Your task to perform on an android device: turn off improve location accuracy Image 0: 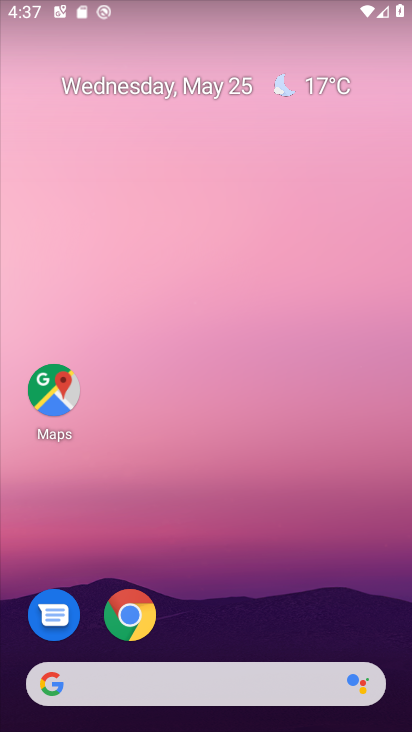
Step 0: drag from (271, 353) to (204, 27)
Your task to perform on an android device: turn off improve location accuracy Image 1: 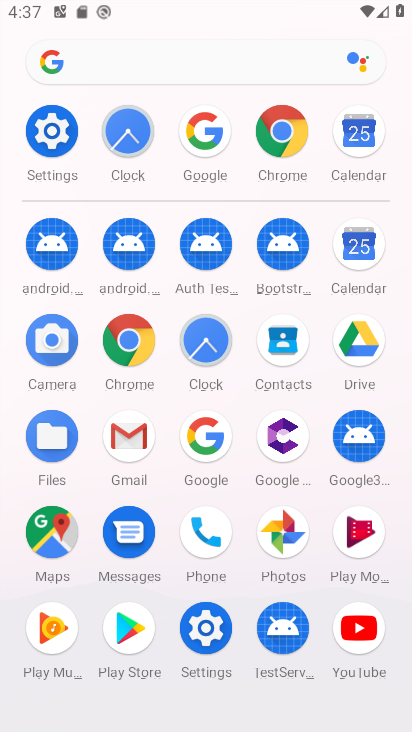
Step 1: click (54, 132)
Your task to perform on an android device: turn off improve location accuracy Image 2: 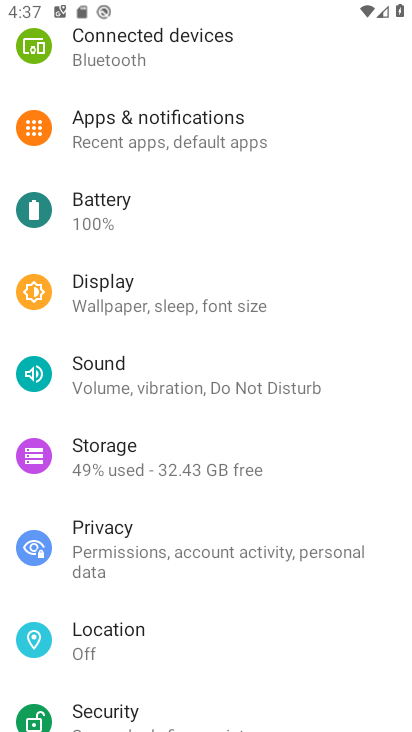
Step 2: click (201, 633)
Your task to perform on an android device: turn off improve location accuracy Image 3: 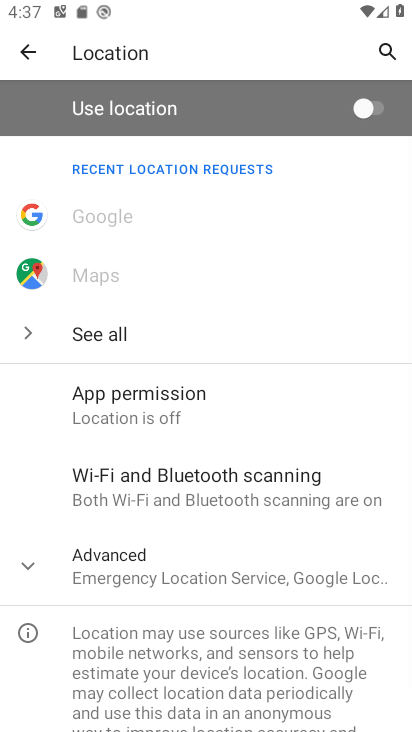
Step 3: click (218, 556)
Your task to perform on an android device: turn off improve location accuracy Image 4: 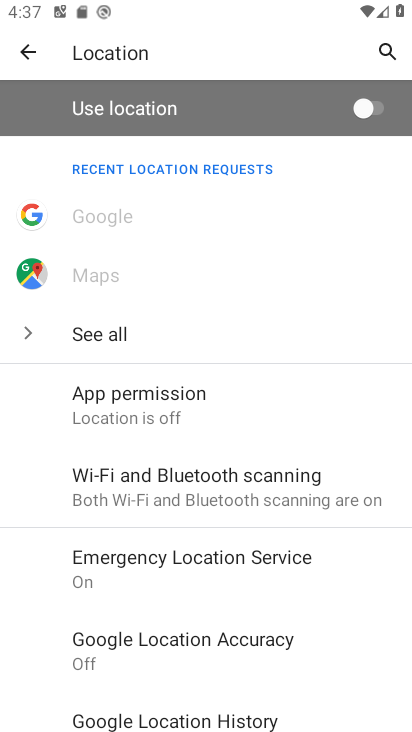
Step 4: click (267, 640)
Your task to perform on an android device: turn off improve location accuracy Image 5: 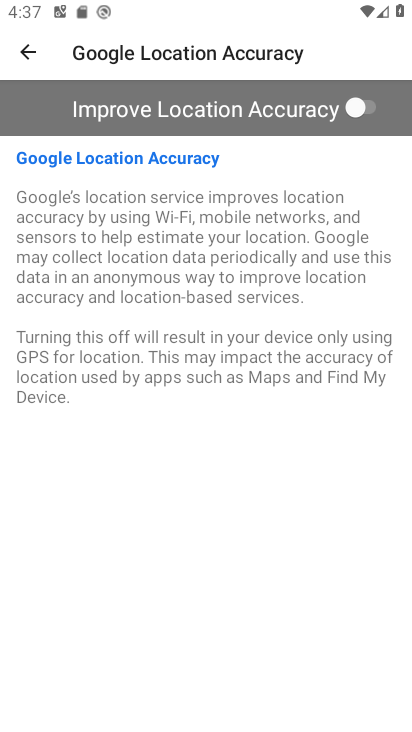
Step 5: task complete